Your task to perform on an android device: turn off location Image 0: 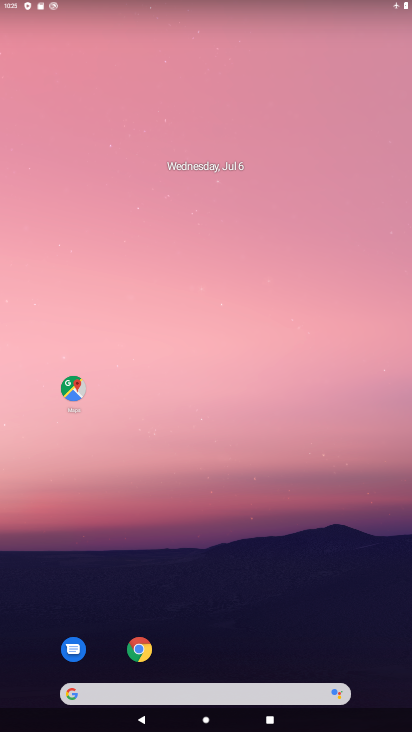
Step 0: drag from (393, 696) to (373, 200)
Your task to perform on an android device: turn off location Image 1: 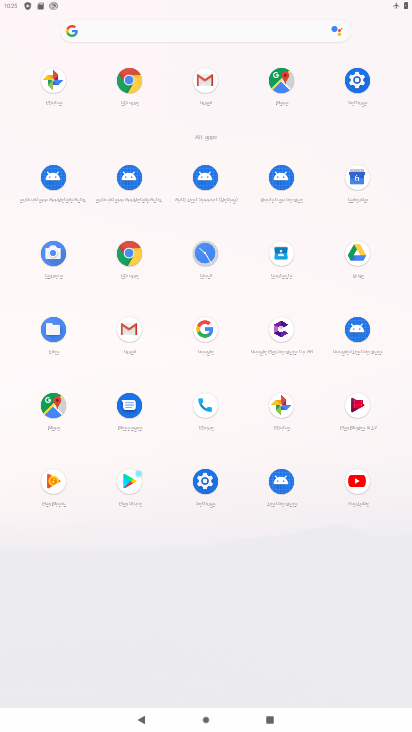
Step 1: click (358, 85)
Your task to perform on an android device: turn off location Image 2: 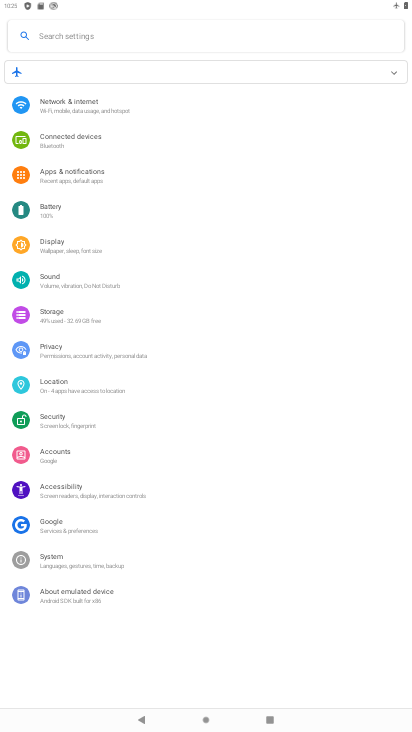
Step 2: click (57, 386)
Your task to perform on an android device: turn off location Image 3: 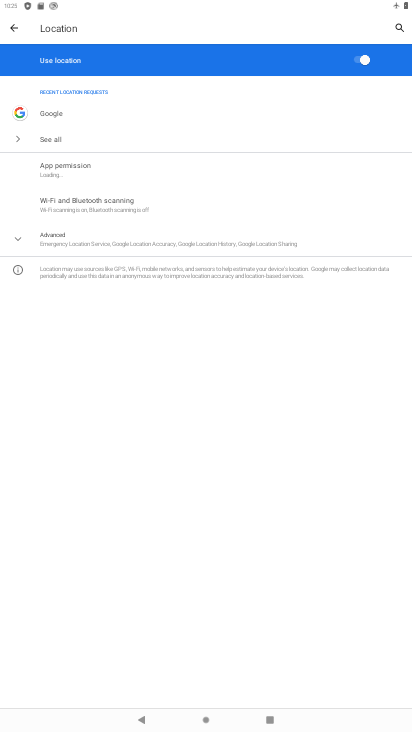
Step 3: click (359, 61)
Your task to perform on an android device: turn off location Image 4: 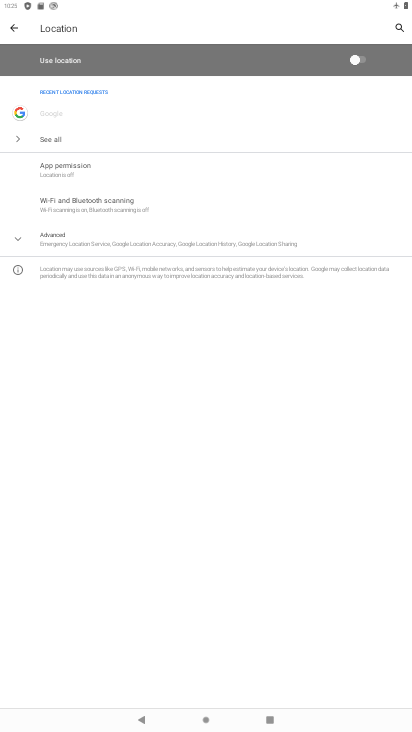
Step 4: task complete